Your task to perform on an android device: turn on showing notifications on the lock screen Image 0: 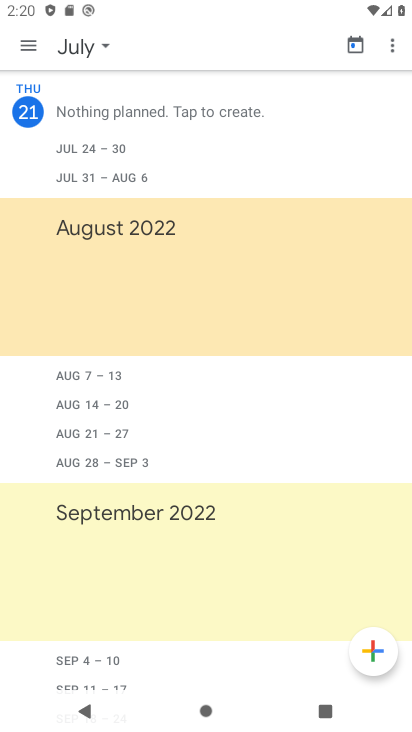
Step 0: press home button
Your task to perform on an android device: turn on showing notifications on the lock screen Image 1: 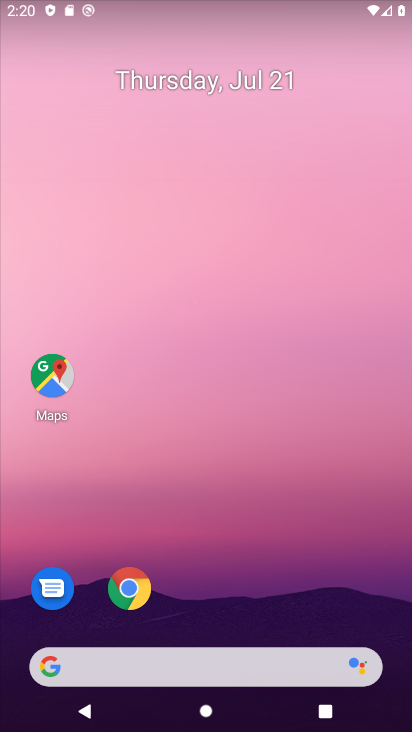
Step 1: drag from (232, 559) to (167, 97)
Your task to perform on an android device: turn on showing notifications on the lock screen Image 2: 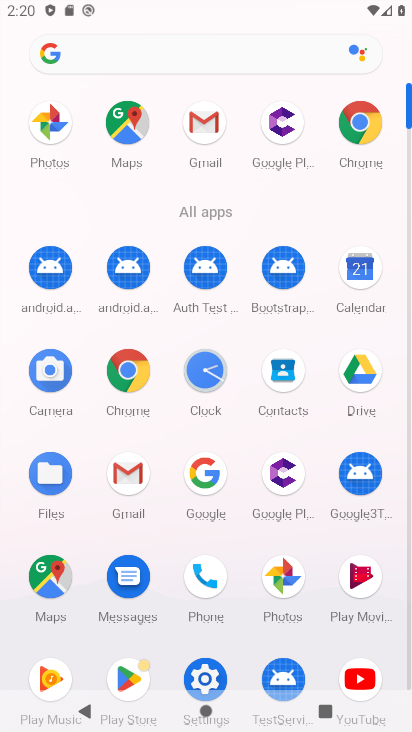
Step 2: click (207, 671)
Your task to perform on an android device: turn on showing notifications on the lock screen Image 3: 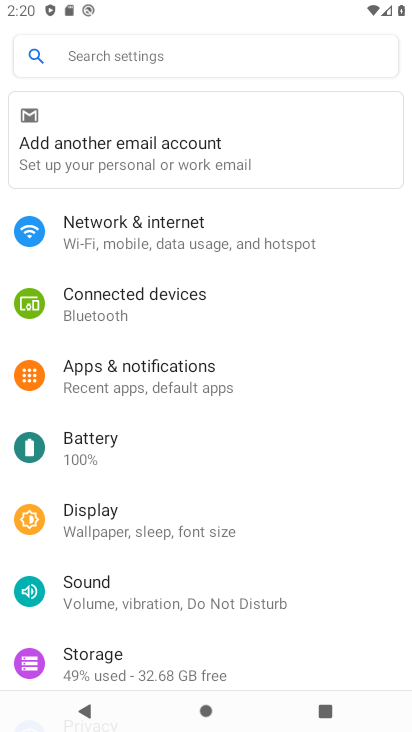
Step 3: click (121, 366)
Your task to perform on an android device: turn on showing notifications on the lock screen Image 4: 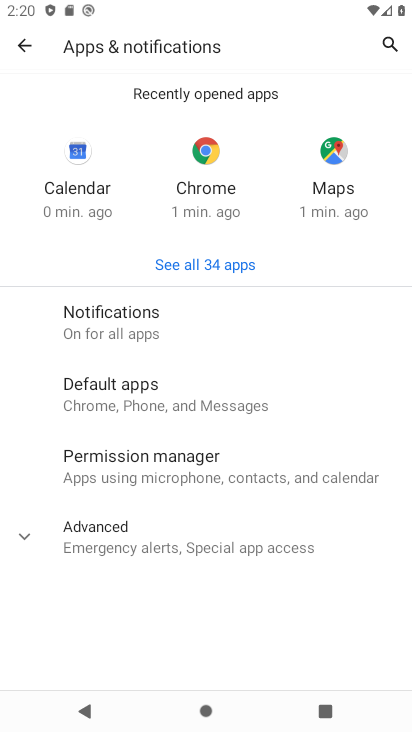
Step 4: click (106, 314)
Your task to perform on an android device: turn on showing notifications on the lock screen Image 5: 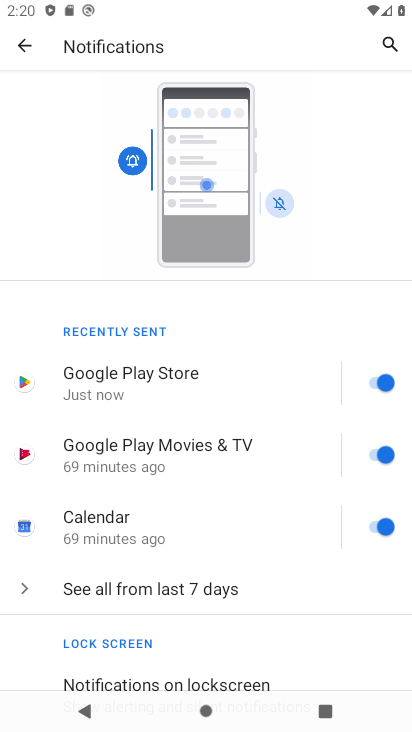
Step 5: click (169, 676)
Your task to perform on an android device: turn on showing notifications on the lock screen Image 6: 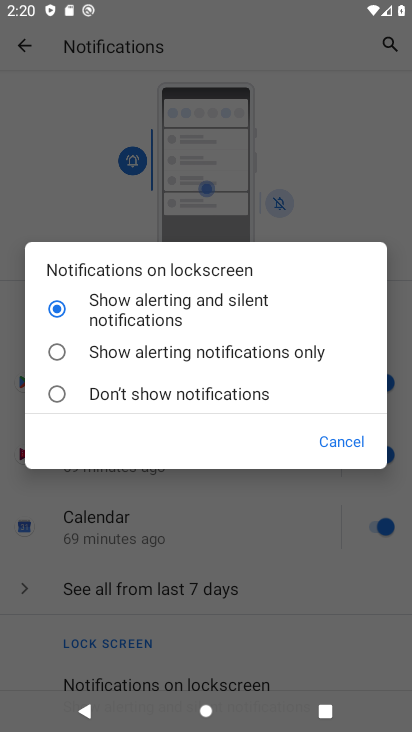
Step 6: task complete